Your task to perform on an android device: Open location settings Image 0: 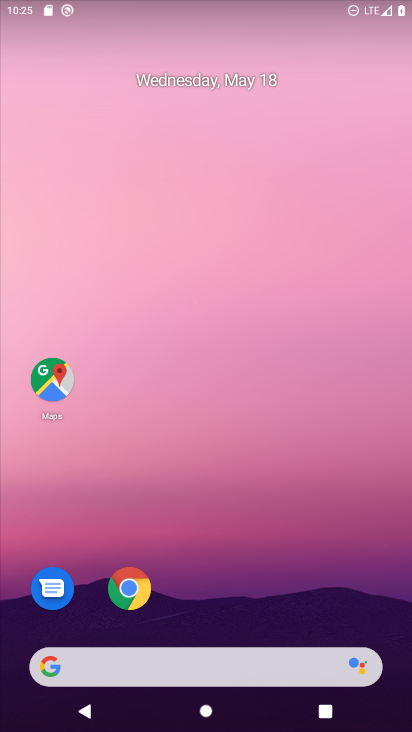
Step 0: drag from (312, 618) to (276, 14)
Your task to perform on an android device: Open location settings Image 1: 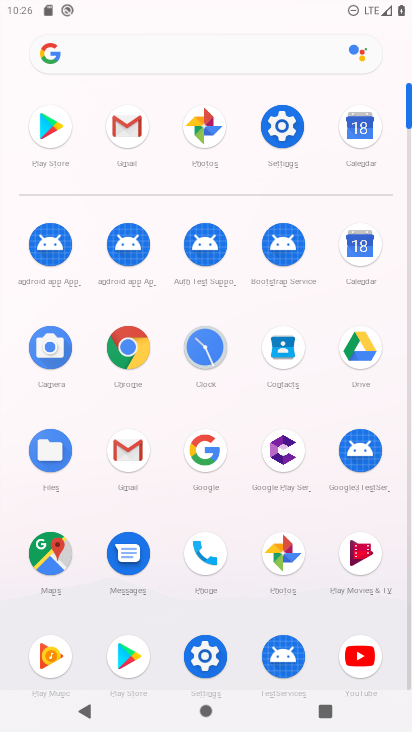
Step 1: click (282, 131)
Your task to perform on an android device: Open location settings Image 2: 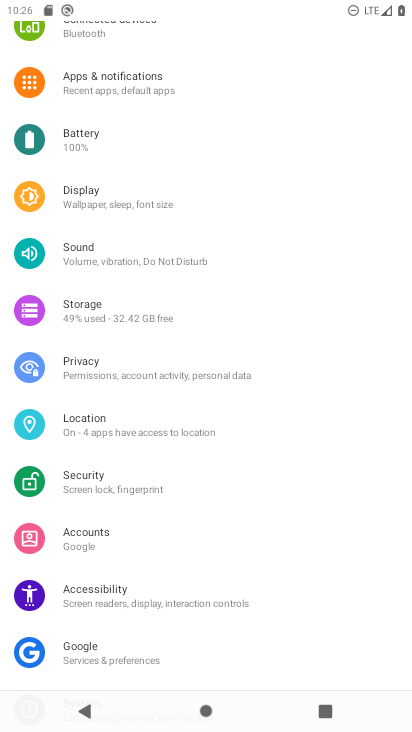
Step 2: click (107, 424)
Your task to perform on an android device: Open location settings Image 3: 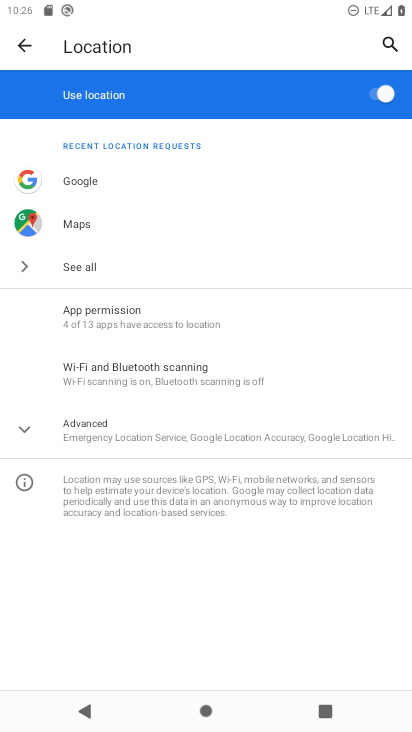
Step 3: task complete